Your task to perform on an android device: Open location settings Image 0: 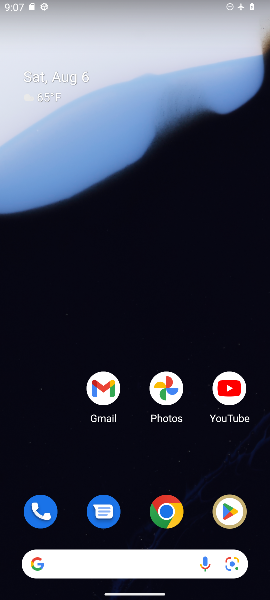
Step 0: drag from (82, 462) to (226, 210)
Your task to perform on an android device: Open location settings Image 1: 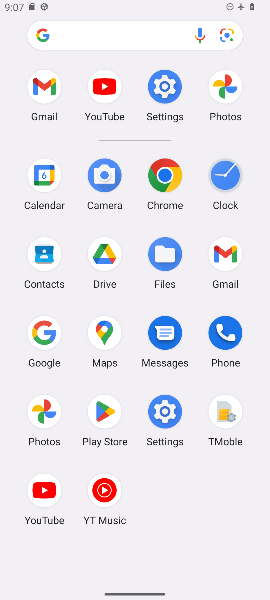
Step 1: click (162, 404)
Your task to perform on an android device: Open location settings Image 2: 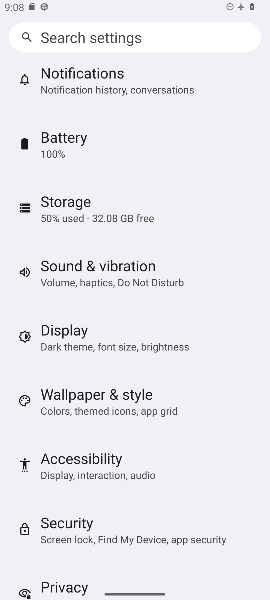
Step 2: drag from (127, 502) to (100, 208)
Your task to perform on an android device: Open location settings Image 3: 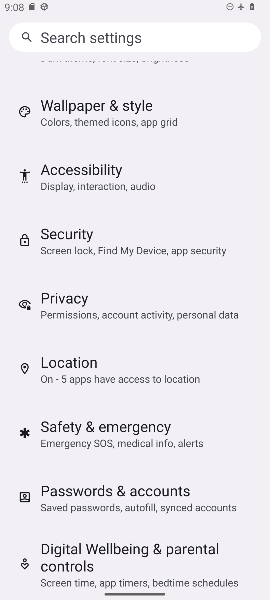
Step 3: drag from (108, 496) to (125, 366)
Your task to perform on an android device: Open location settings Image 4: 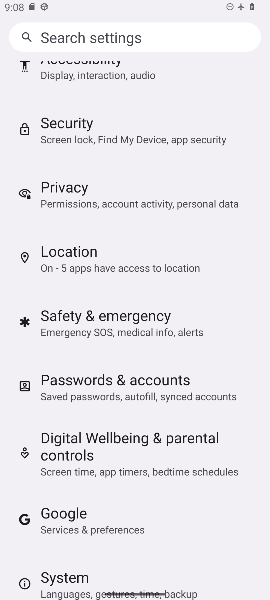
Step 4: click (88, 272)
Your task to perform on an android device: Open location settings Image 5: 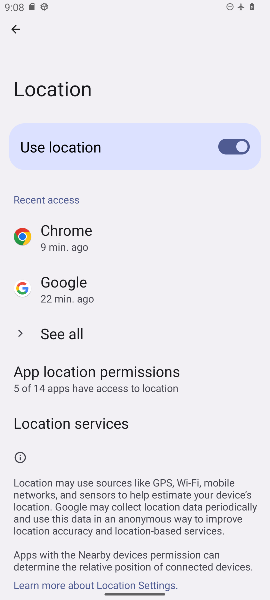
Step 5: task complete